Your task to perform on an android device: turn off location Image 0: 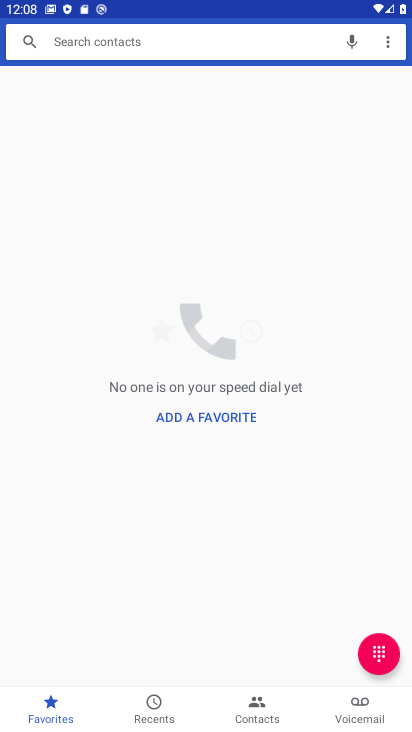
Step 0: press home button
Your task to perform on an android device: turn off location Image 1: 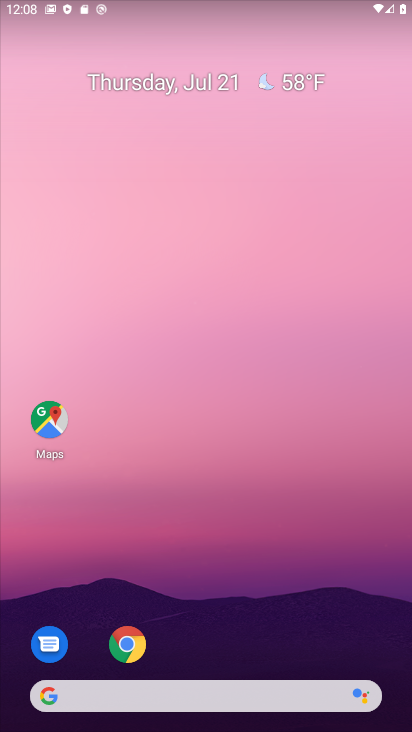
Step 1: drag from (287, 659) to (209, 168)
Your task to perform on an android device: turn off location Image 2: 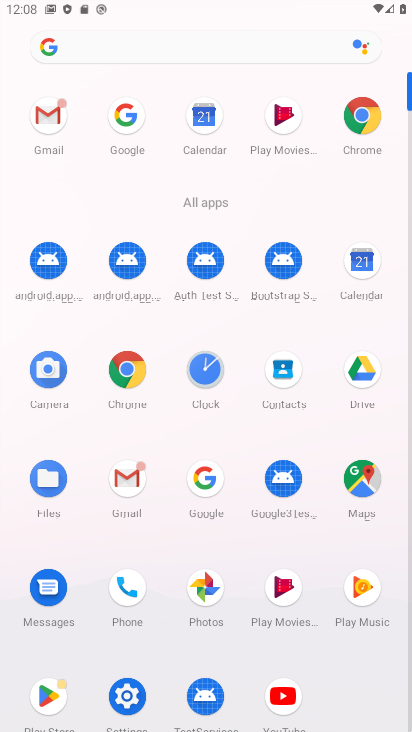
Step 2: click (109, 691)
Your task to perform on an android device: turn off location Image 3: 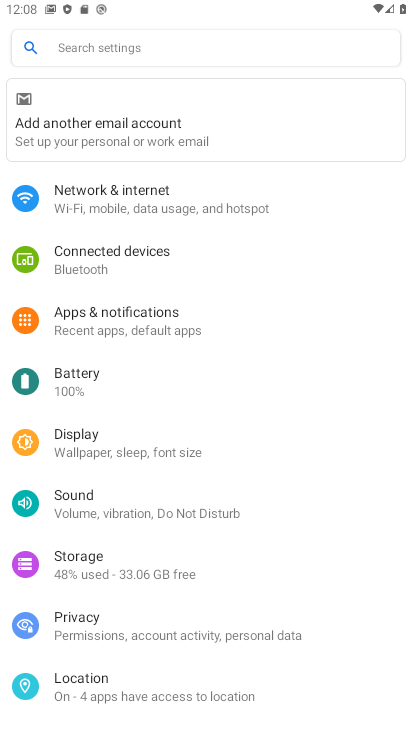
Step 3: click (79, 677)
Your task to perform on an android device: turn off location Image 4: 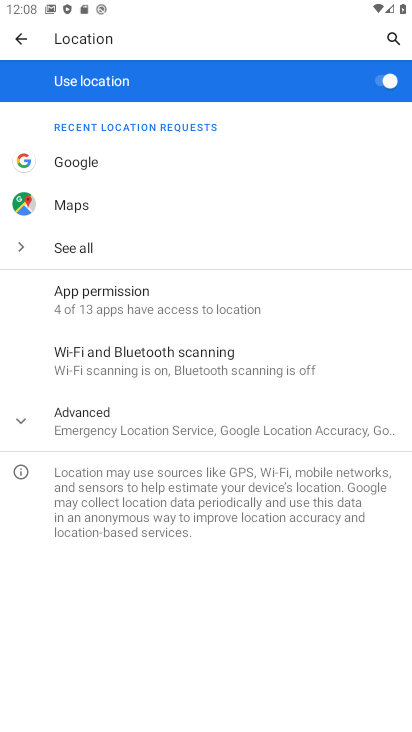
Step 4: click (369, 77)
Your task to perform on an android device: turn off location Image 5: 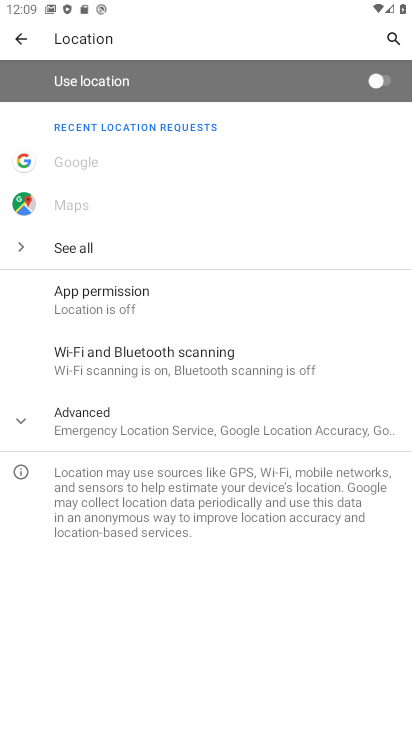
Step 5: task complete